Your task to perform on an android device: turn on javascript in the chrome app Image 0: 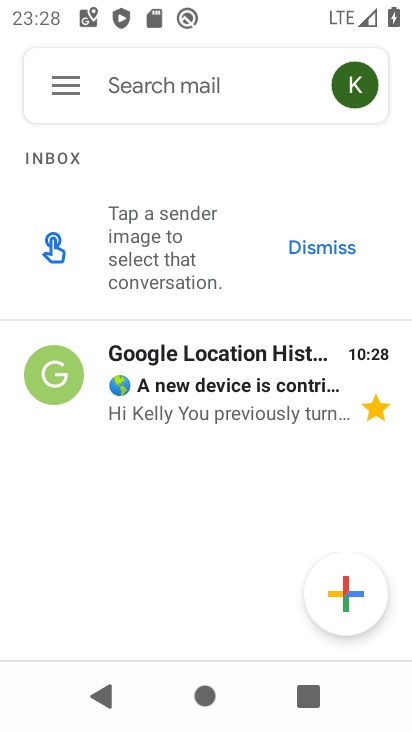
Step 0: press back button
Your task to perform on an android device: turn on javascript in the chrome app Image 1: 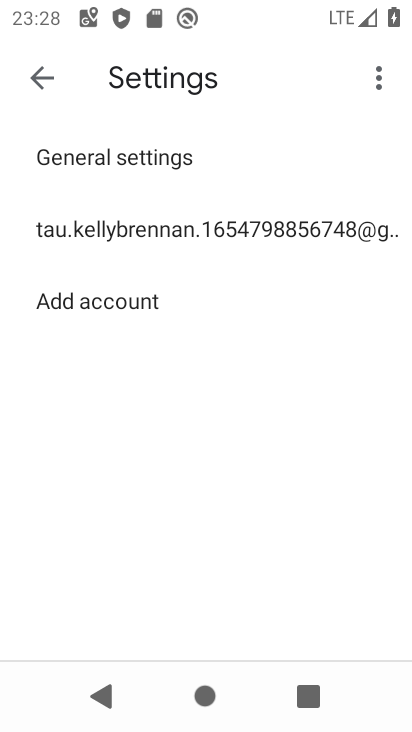
Step 1: press home button
Your task to perform on an android device: turn on javascript in the chrome app Image 2: 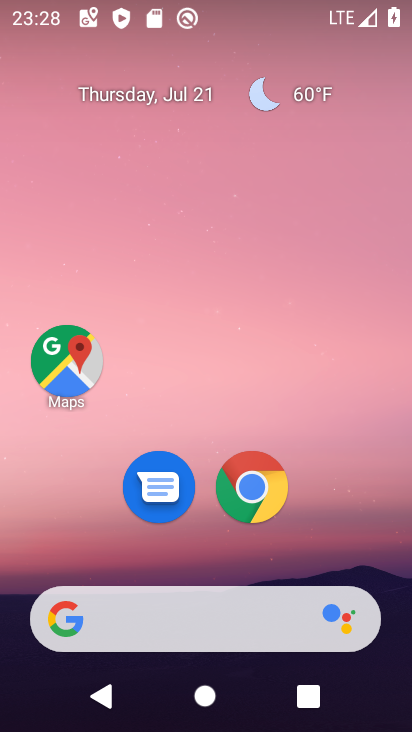
Step 2: click (271, 481)
Your task to perform on an android device: turn on javascript in the chrome app Image 3: 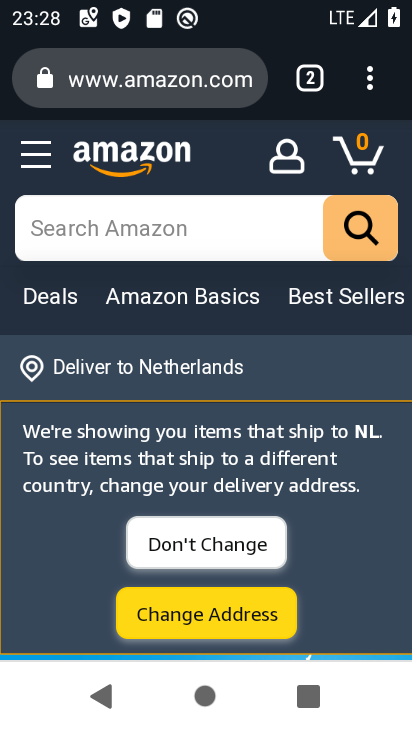
Step 3: drag from (373, 74) to (89, 548)
Your task to perform on an android device: turn on javascript in the chrome app Image 4: 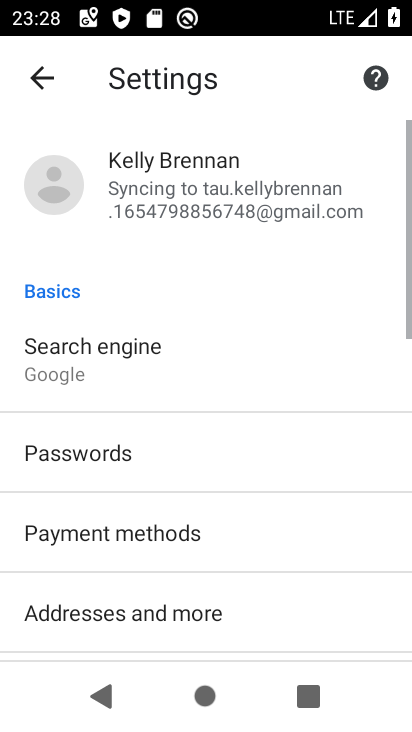
Step 4: drag from (127, 597) to (216, 48)
Your task to perform on an android device: turn on javascript in the chrome app Image 5: 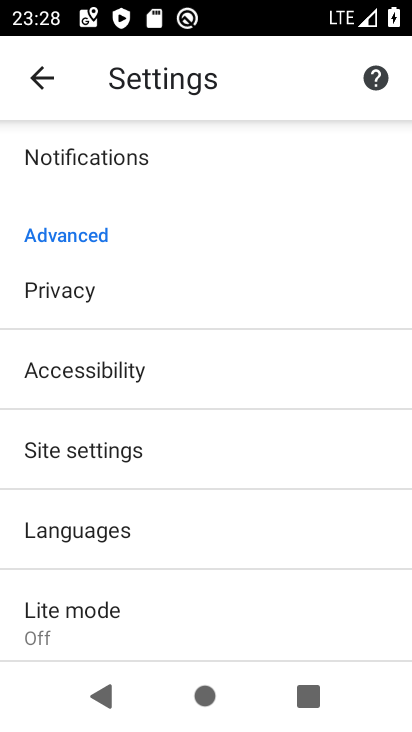
Step 5: click (95, 442)
Your task to perform on an android device: turn on javascript in the chrome app Image 6: 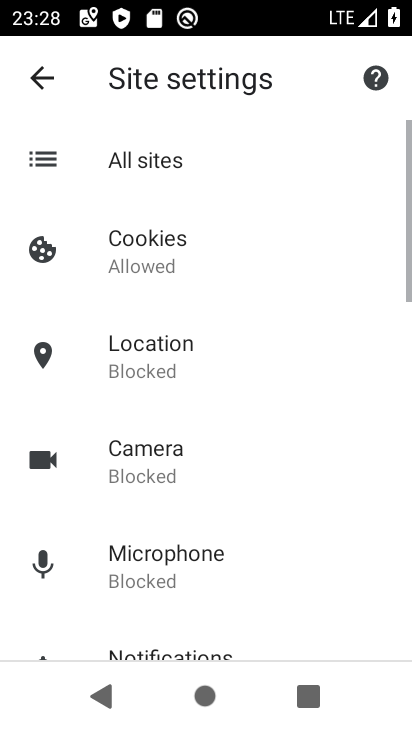
Step 6: drag from (148, 610) to (194, 100)
Your task to perform on an android device: turn on javascript in the chrome app Image 7: 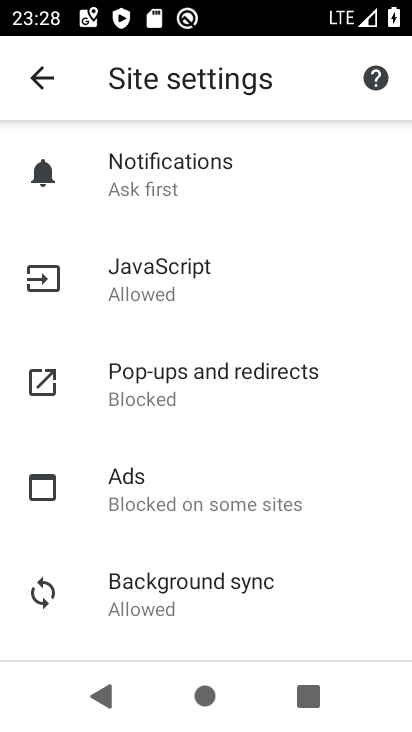
Step 7: click (157, 285)
Your task to perform on an android device: turn on javascript in the chrome app Image 8: 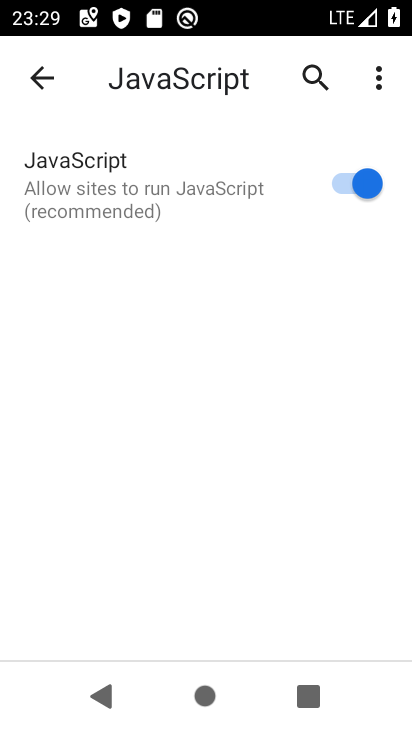
Step 8: task complete